Your task to perform on an android device: toggle location history Image 0: 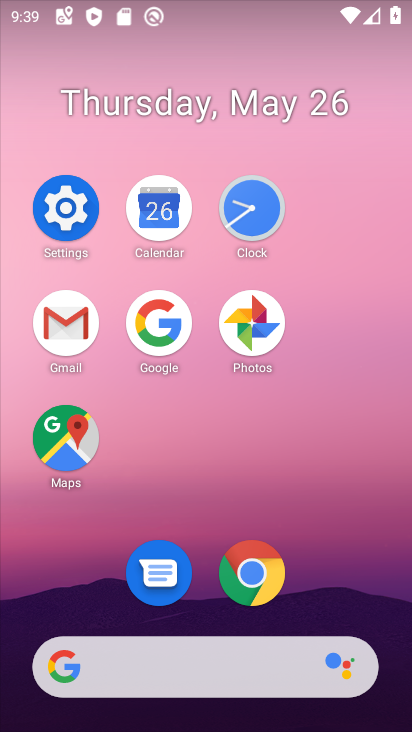
Step 0: click (92, 220)
Your task to perform on an android device: toggle location history Image 1: 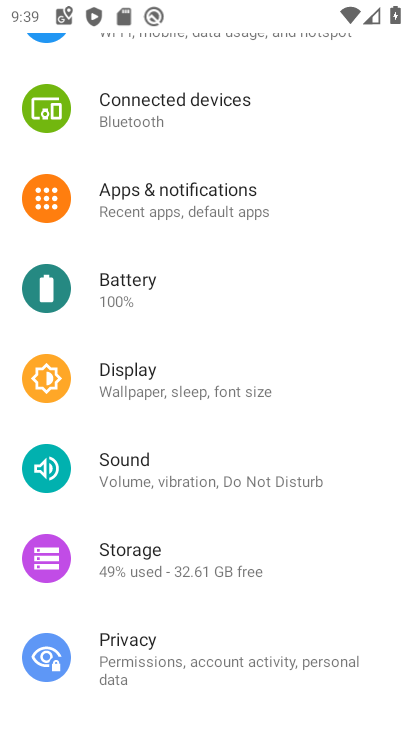
Step 1: drag from (214, 584) to (263, 187)
Your task to perform on an android device: toggle location history Image 2: 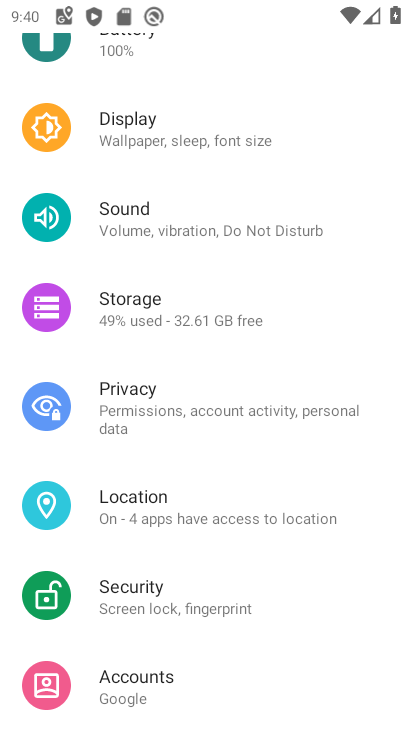
Step 2: click (201, 492)
Your task to perform on an android device: toggle location history Image 3: 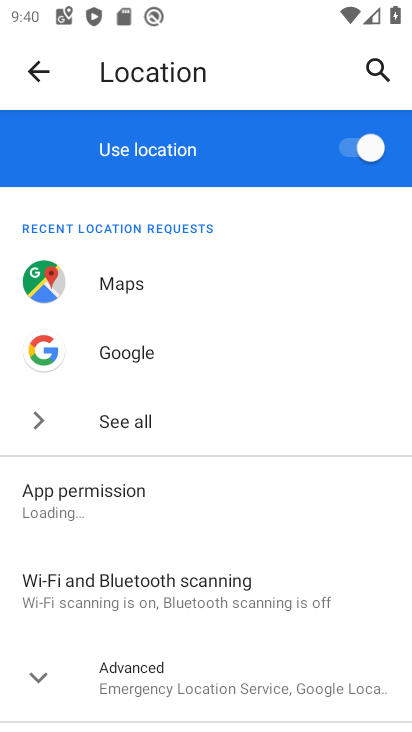
Step 3: click (171, 658)
Your task to perform on an android device: toggle location history Image 4: 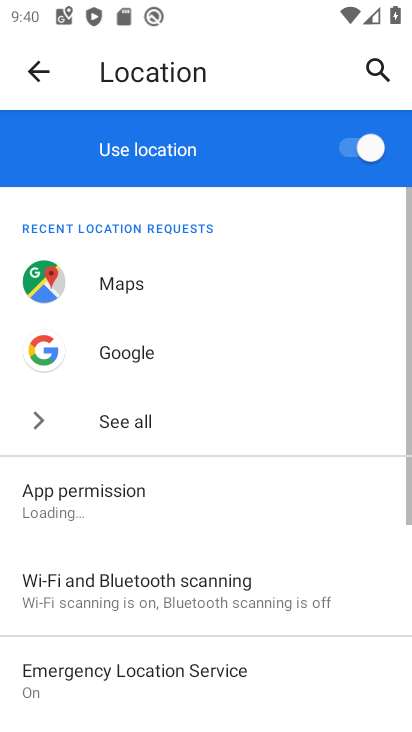
Step 4: drag from (271, 607) to (333, 231)
Your task to perform on an android device: toggle location history Image 5: 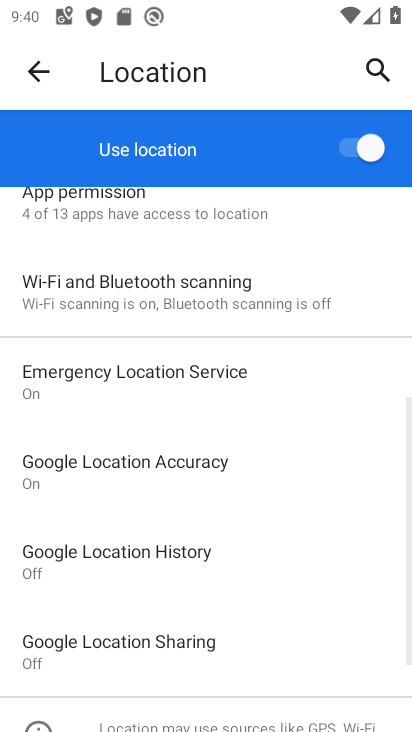
Step 5: click (181, 571)
Your task to perform on an android device: toggle location history Image 6: 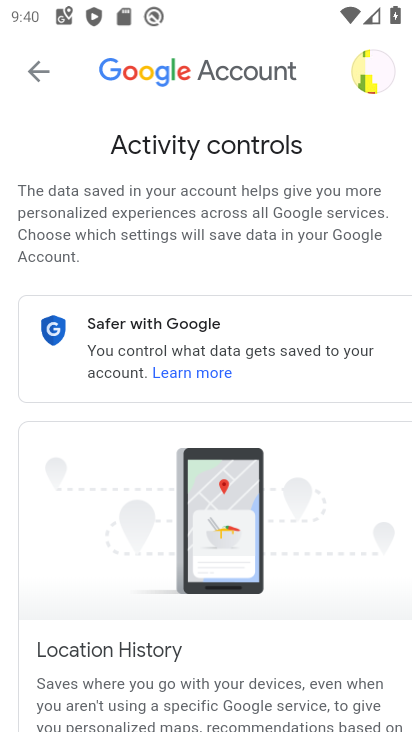
Step 6: drag from (267, 542) to (340, 177)
Your task to perform on an android device: toggle location history Image 7: 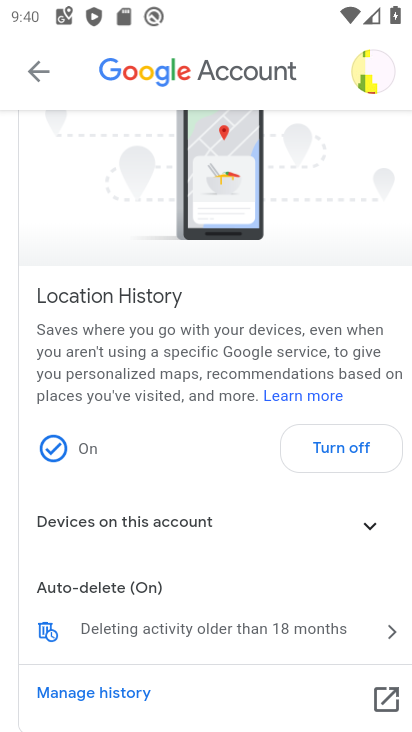
Step 7: drag from (303, 534) to (276, 151)
Your task to perform on an android device: toggle location history Image 8: 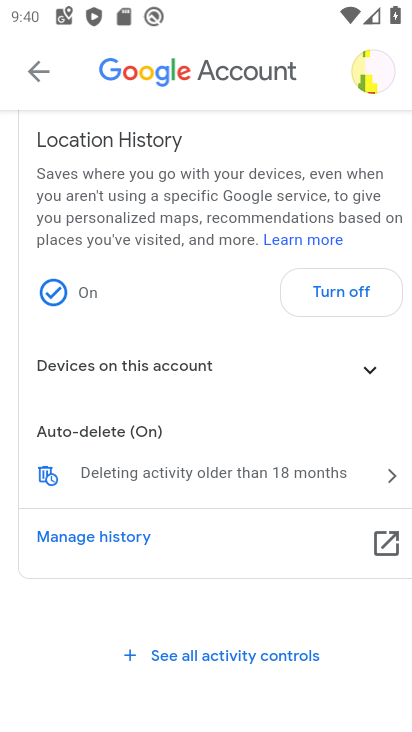
Step 8: click (334, 304)
Your task to perform on an android device: toggle location history Image 9: 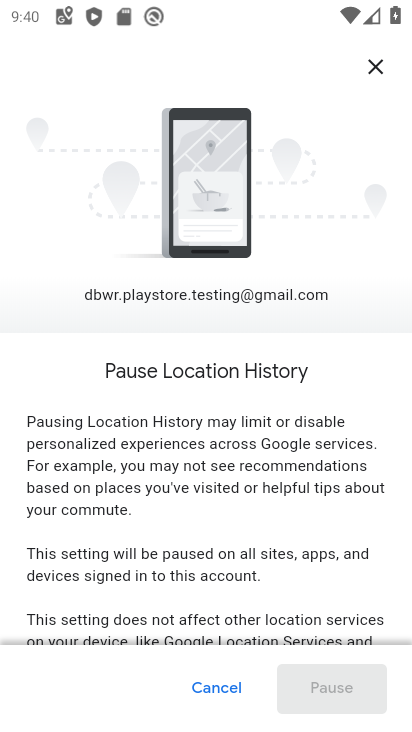
Step 9: drag from (256, 534) to (276, 136)
Your task to perform on an android device: toggle location history Image 10: 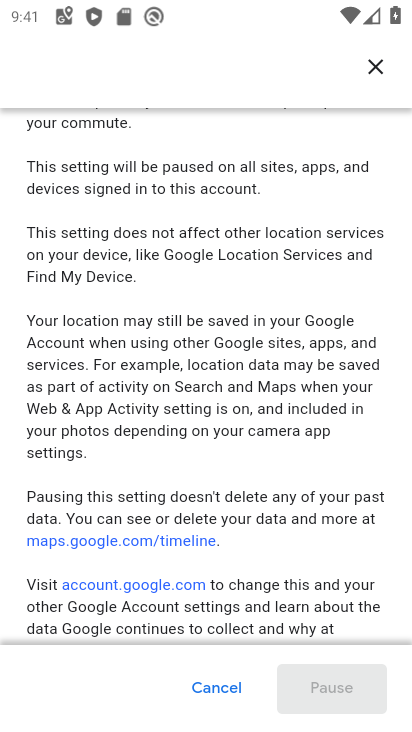
Step 10: drag from (259, 556) to (273, 120)
Your task to perform on an android device: toggle location history Image 11: 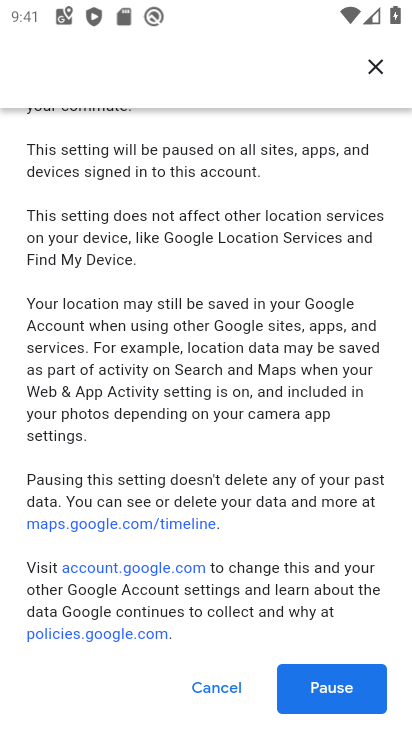
Step 11: click (346, 685)
Your task to perform on an android device: toggle location history Image 12: 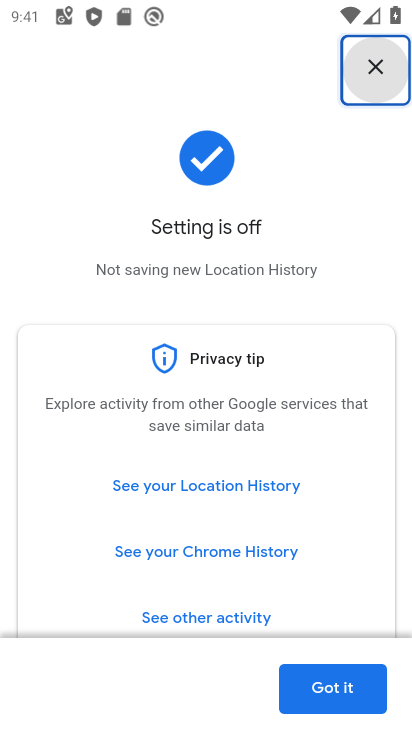
Step 12: click (322, 688)
Your task to perform on an android device: toggle location history Image 13: 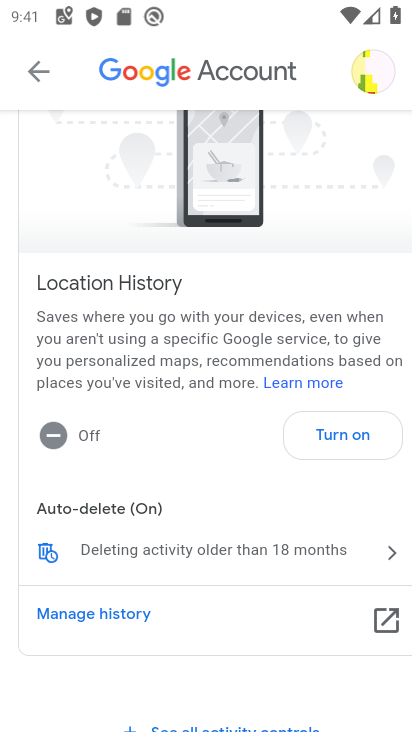
Step 13: task complete